Your task to perform on an android device: turn pop-ups off in chrome Image 0: 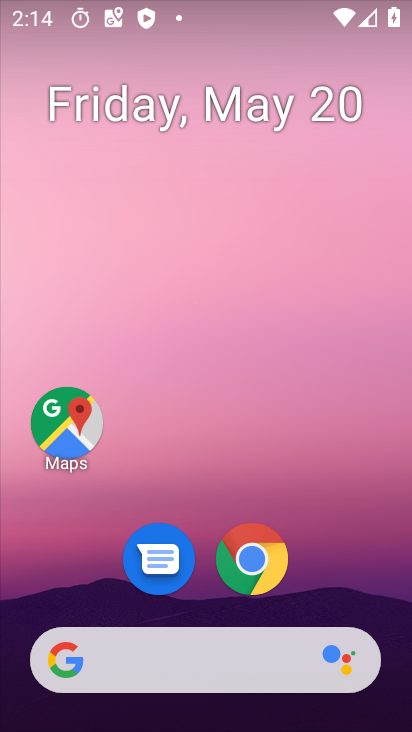
Step 0: click (250, 560)
Your task to perform on an android device: turn pop-ups off in chrome Image 1: 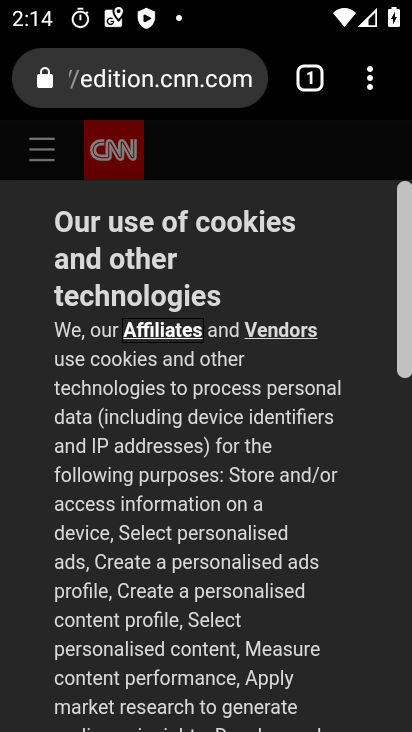
Step 1: click (372, 82)
Your task to perform on an android device: turn pop-ups off in chrome Image 2: 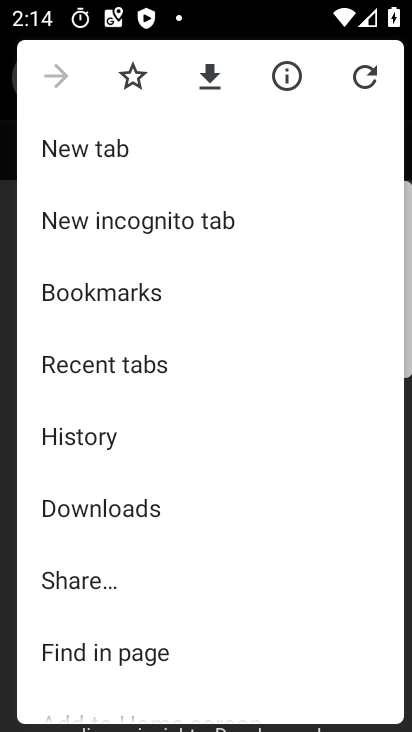
Step 2: drag from (179, 568) to (211, 487)
Your task to perform on an android device: turn pop-ups off in chrome Image 3: 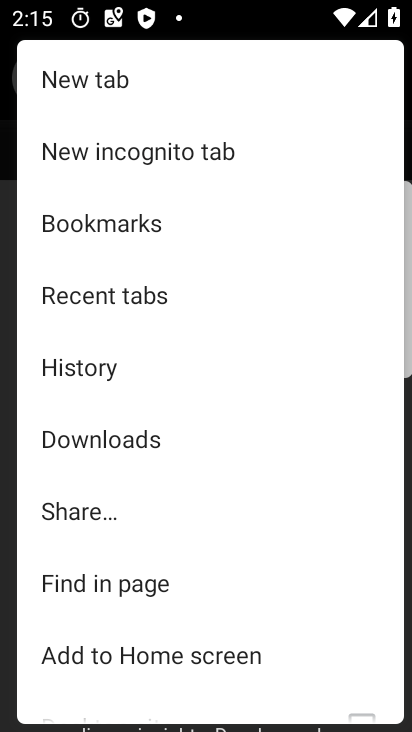
Step 3: drag from (130, 617) to (203, 493)
Your task to perform on an android device: turn pop-ups off in chrome Image 4: 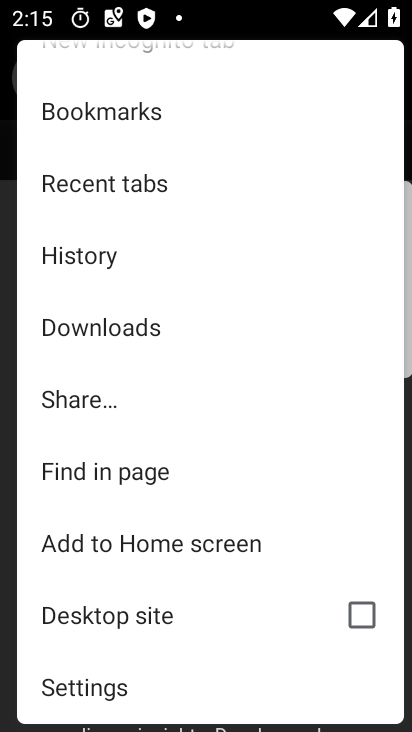
Step 4: drag from (98, 645) to (177, 497)
Your task to perform on an android device: turn pop-ups off in chrome Image 5: 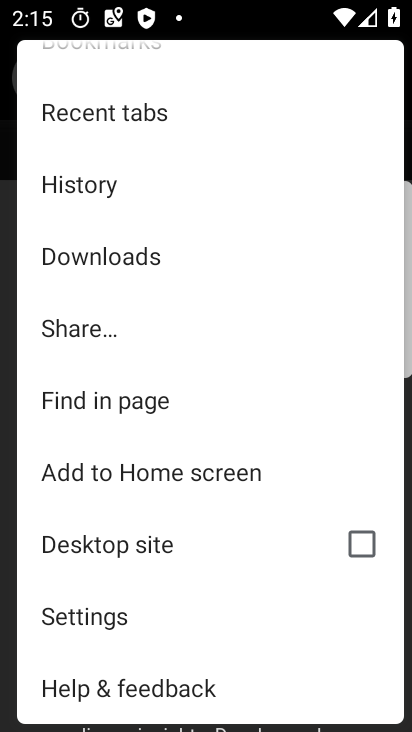
Step 5: click (99, 616)
Your task to perform on an android device: turn pop-ups off in chrome Image 6: 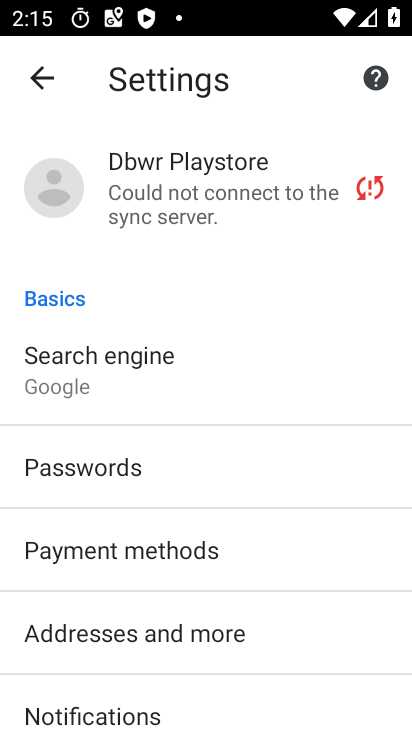
Step 6: drag from (116, 696) to (167, 498)
Your task to perform on an android device: turn pop-ups off in chrome Image 7: 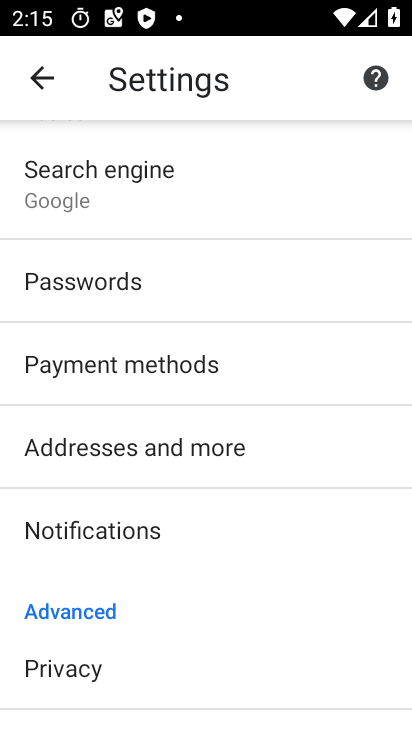
Step 7: drag from (191, 683) to (267, 505)
Your task to perform on an android device: turn pop-ups off in chrome Image 8: 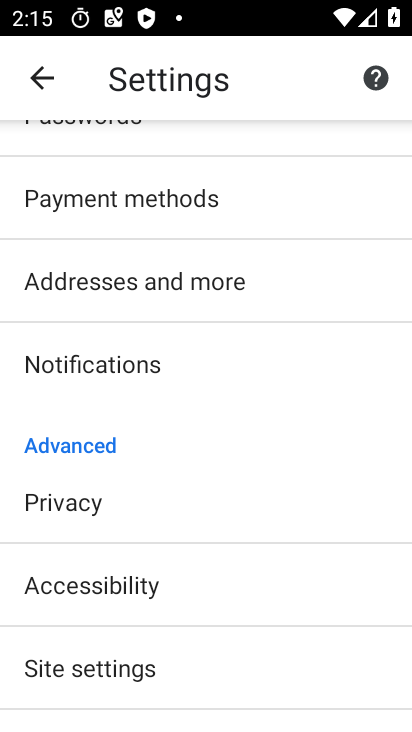
Step 8: click (133, 662)
Your task to perform on an android device: turn pop-ups off in chrome Image 9: 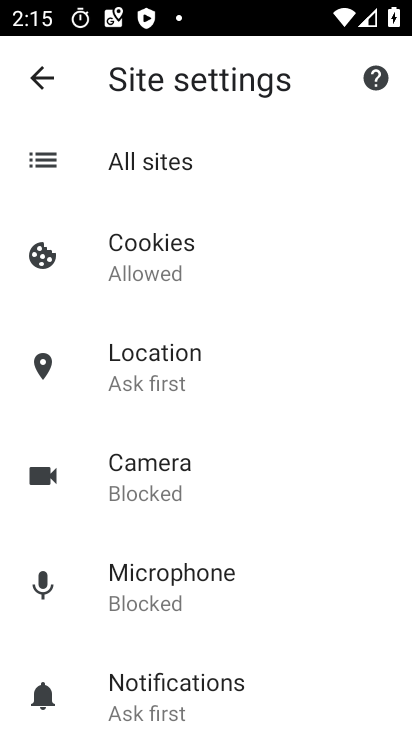
Step 9: drag from (185, 630) to (261, 482)
Your task to perform on an android device: turn pop-ups off in chrome Image 10: 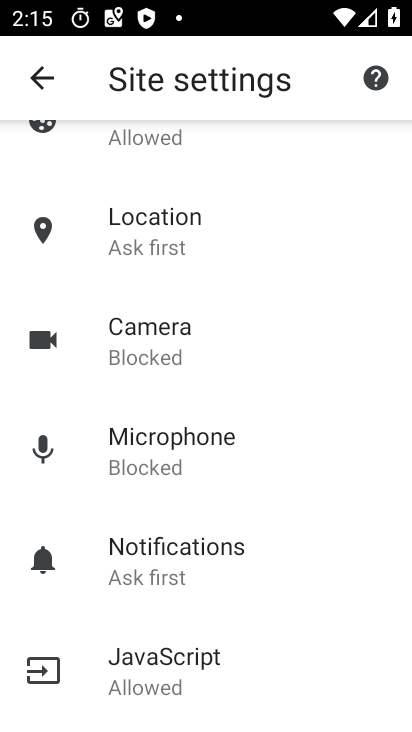
Step 10: drag from (172, 620) to (247, 422)
Your task to perform on an android device: turn pop-ups off in chrome Image 11: 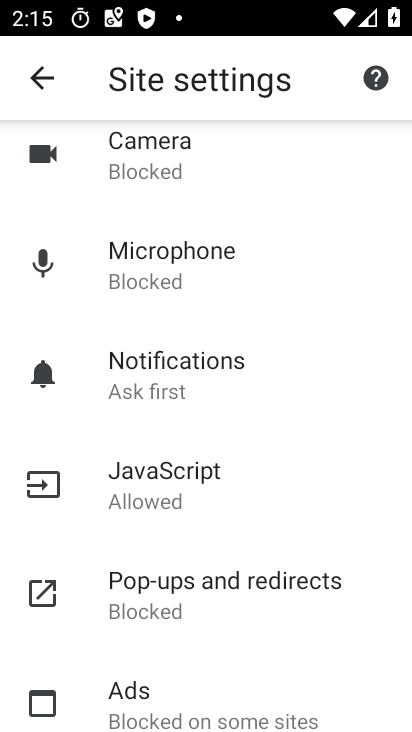
Step 11: click (143, 594)
Your task to perform on an android device: turn pop-ups off in chrome Image 12: 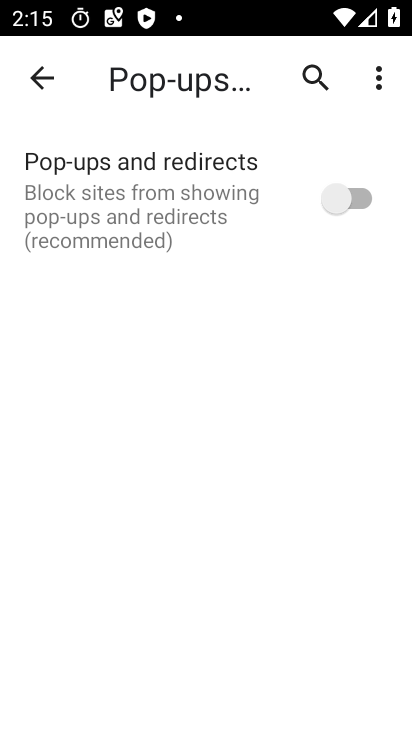
Step 12: task complete